Your task to perform on an android device: Search for seafood restaurants on Google Maps Image 0: 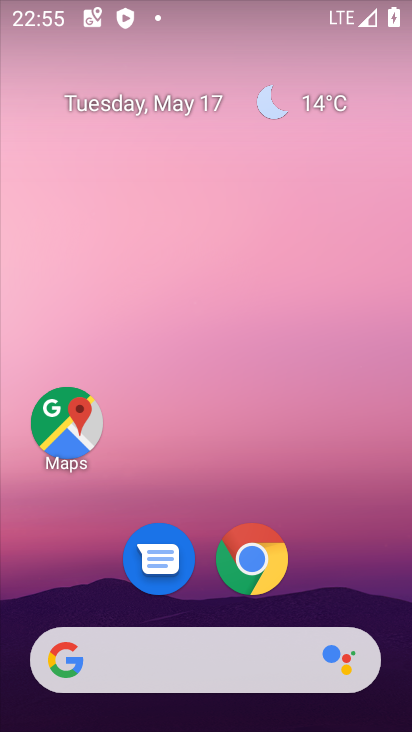
Step 0: click (68, 412)
Your task to perform on an android device: Search for seafood restaurants on Google Maps Image 1: 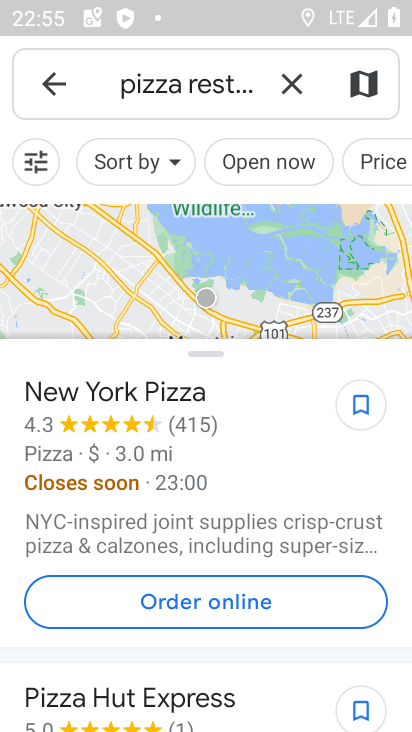
Step 1: click (182, 88)
Your task to perform on an android device: Search for seafood restaurants on Google Maps Image 2: 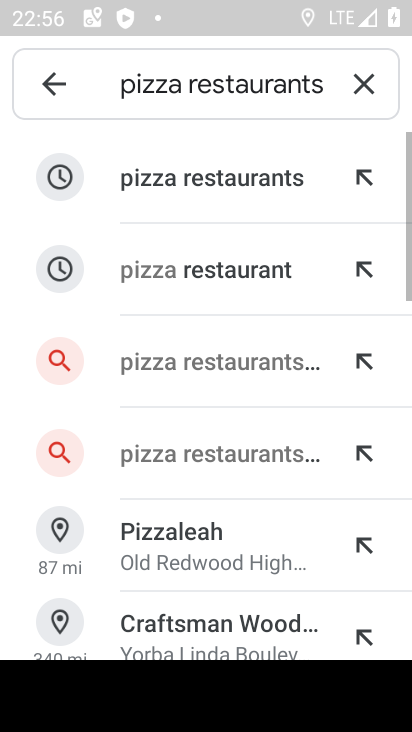
Step 2: click (365, 79)
Your task to perform on an android device: Search for seafood restaurants on Google Maps Image 3: 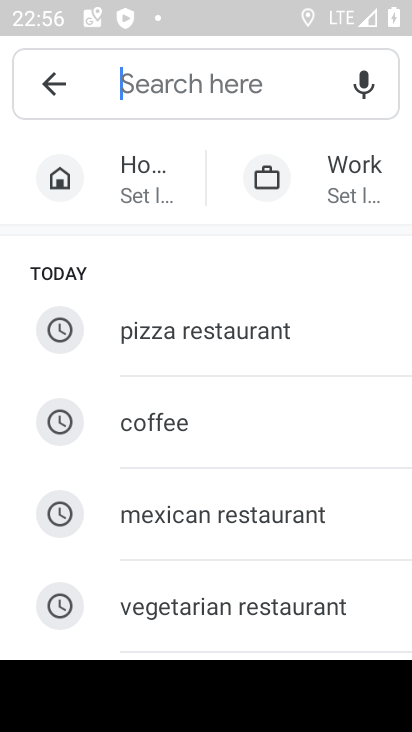
Step 3: type "sefood restaurants"
Your task to perform on an android device: Search for seafood restaurants on Google Maps Image 4: 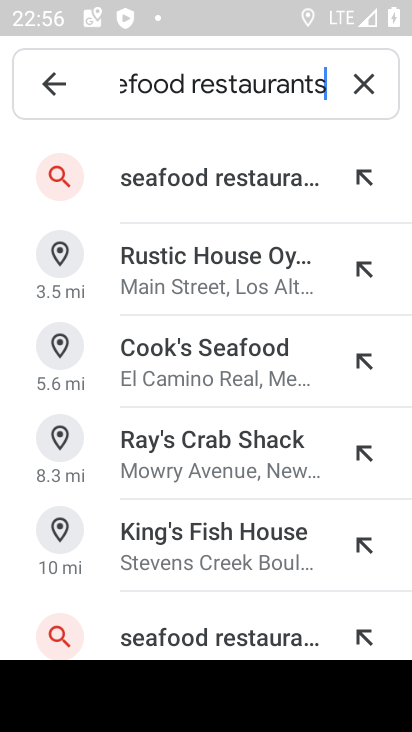
Step 4: press enter
Your task to perform on an android device: Search for seafood restaurants on Google Maps Image 5: 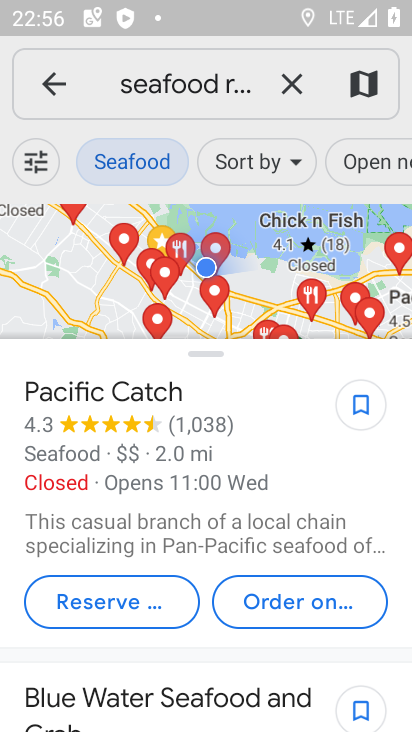
Step 5: task complete